Your task to perform on an android device: see sites visited before in the chrome app Image 0: 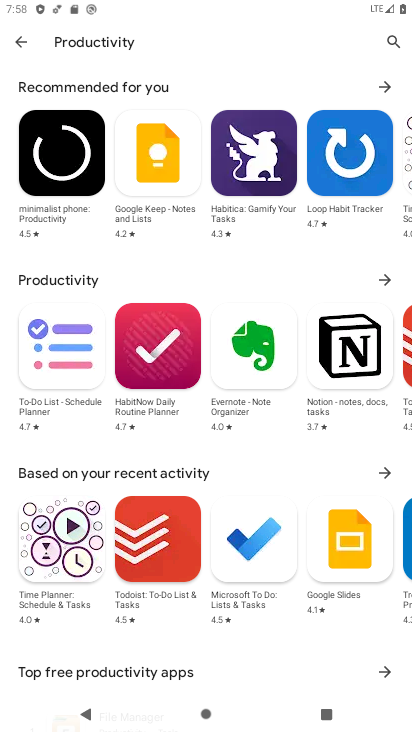
Step 0: press back button
Your task to perform on an android device: see sites visited before in the chrome app Image 1: 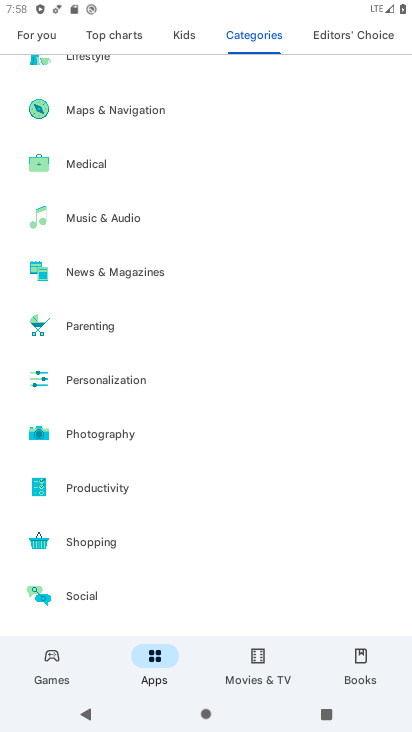
Step 1: press back button
Your task to perform on an android device: see sites visited before in the chrome app Image 2: 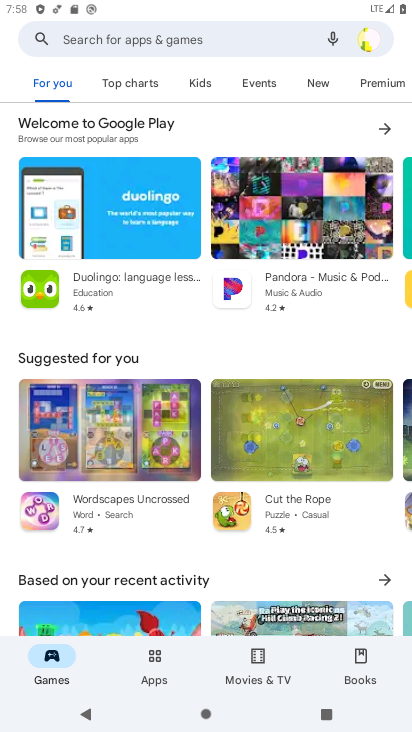
Step 2: press back button
Your task to perform on an android device: see sites visited before in the chrome app Image 3: 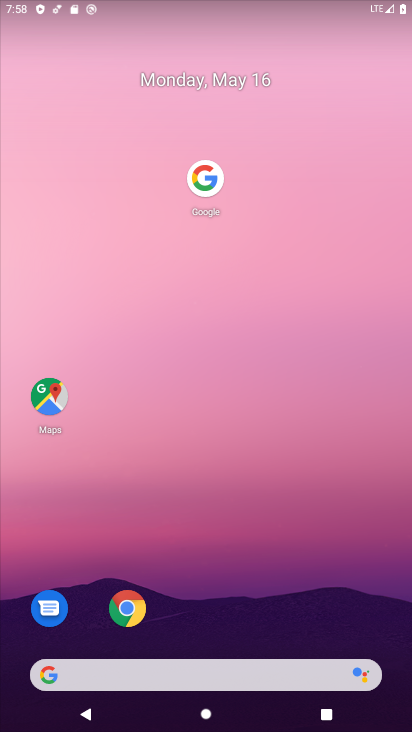
Step 3: click (126, 608)
Your task to perform on an android device: see sites visited before in the chrome app Image 4: 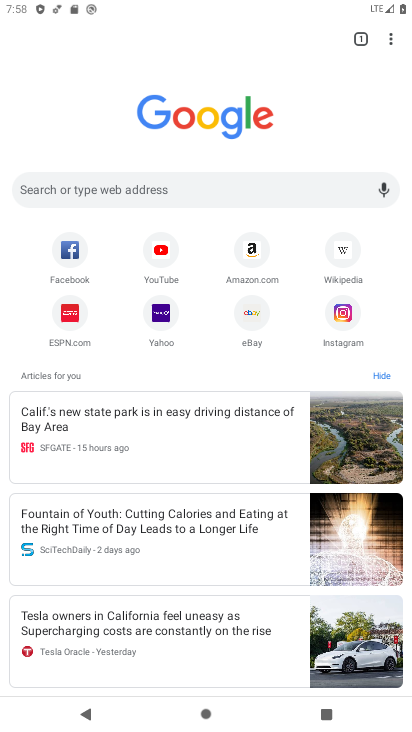
Step 4: click (392, 39)
Your task to perform on an android device: see sites visited before in the chrome app Image 5: 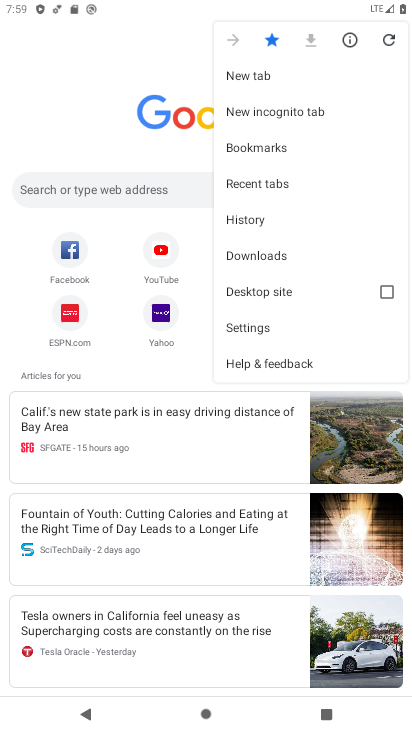
Step 5: click (247, 221)
Your task to perform on an android device: see sites visited before in the chrome app Image 6: 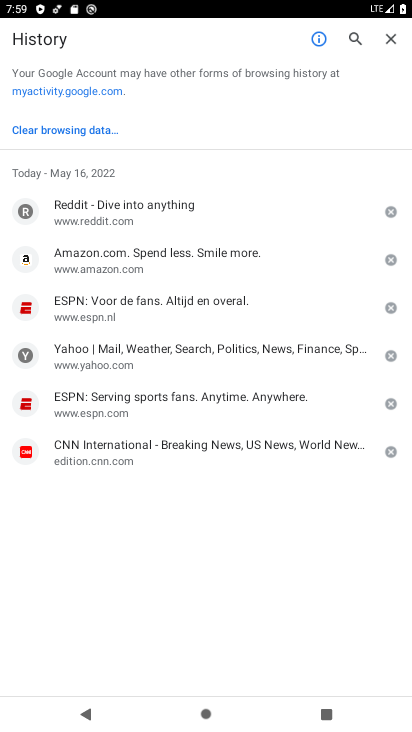
Step 6: task complete